Your task to perform on an android device: Go to privacy settings Image 0: 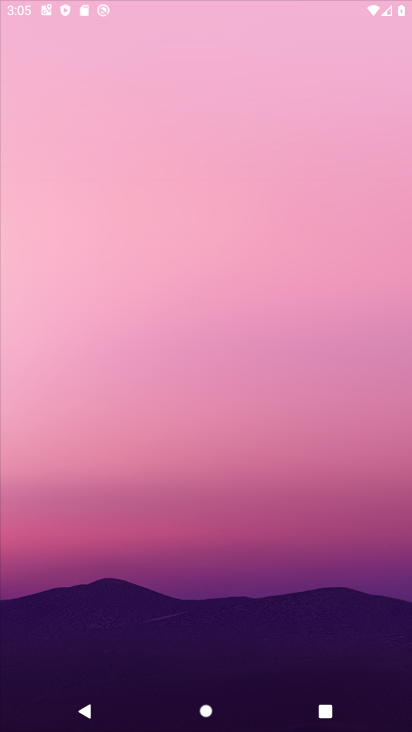
Step 0: press back button
Your task to perform on an android device: Go to privacy settings Image 1: 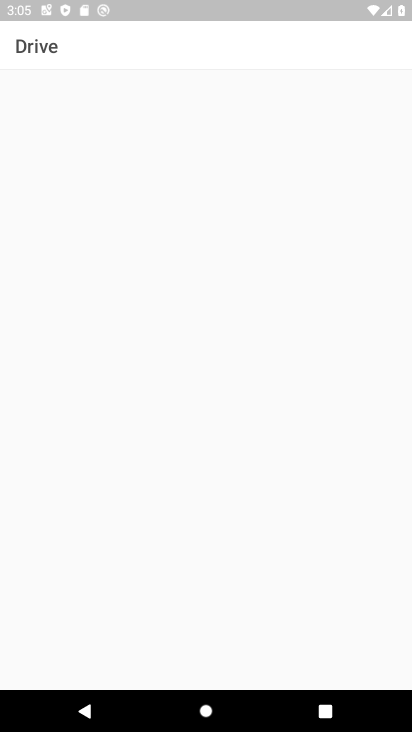
Step 1: press back button
Your task to perform on an android device: Go to privacy settings Image 2: 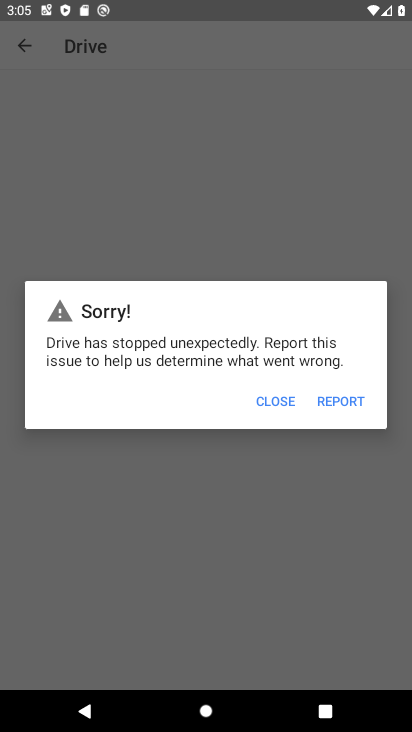
Step 2: press home button
Your task to perform on an android device: Go to privacy settings Image 3: 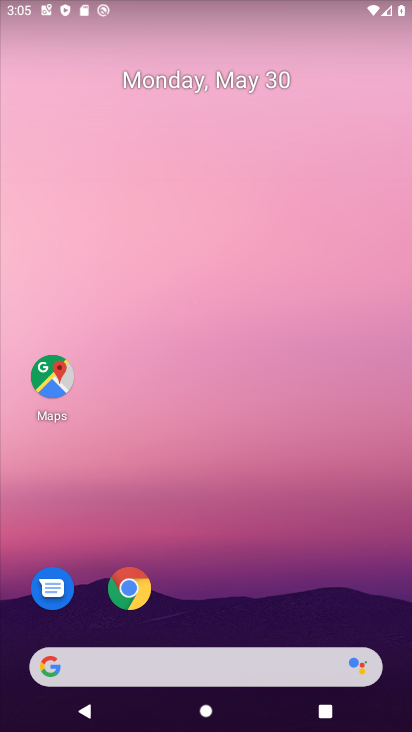
Step 3: drag from (238, 565) to (248, 35)
Your task to perform on an android device: Go to privacy settings Image 4: 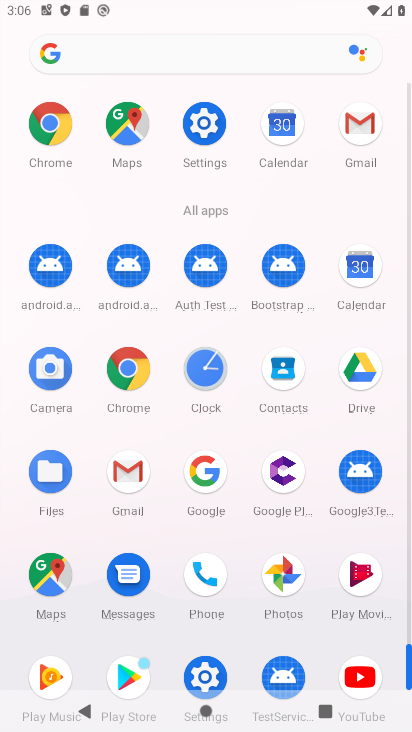
Step 4: drag from (11, 583) to (41, 230)
Your task to perform on an android device: Go to privacy settings Image 5: 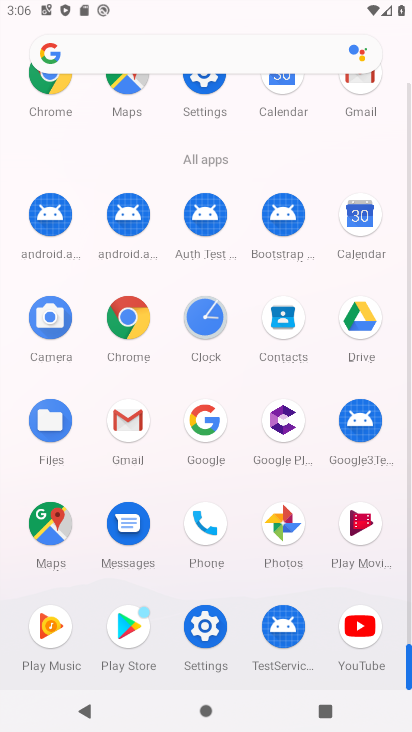
Step 5: click (206, 628)
Your task to perform on an android device: Go to privacy settings Image 6: 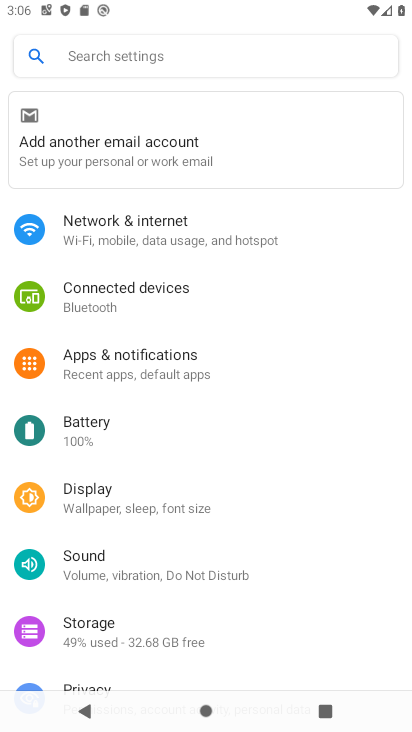
Step 6: press back button
Your task to perform on an android device: Go to privacy settings Image 7: 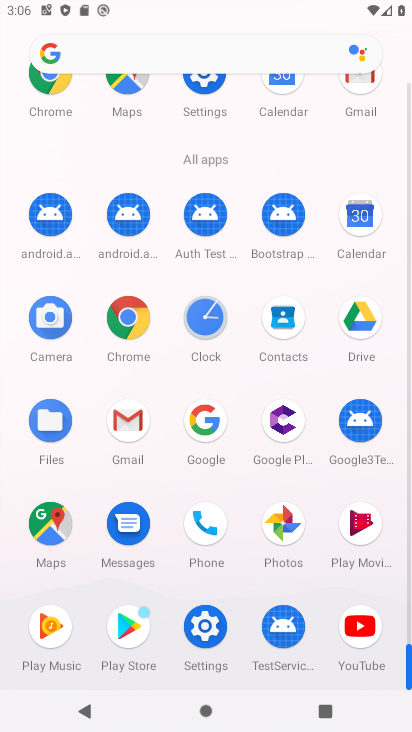
Step 7: click (127, 314)
Your task to perform on an android device: Go to privacy settings Image 8: 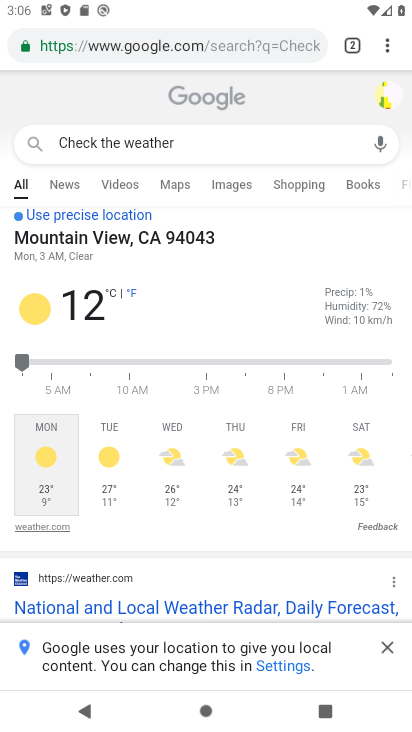
Step 8: drag from (384, 45) to (253, 502)
Your task to perform on an android device: Go to privacy settings Image 9: 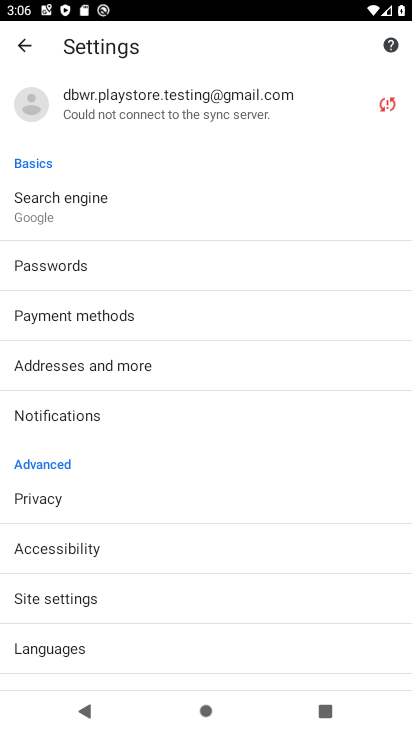
Step 9: click (64, 495)
Your task to perform on an android device: Go to privacy settings Image 10: 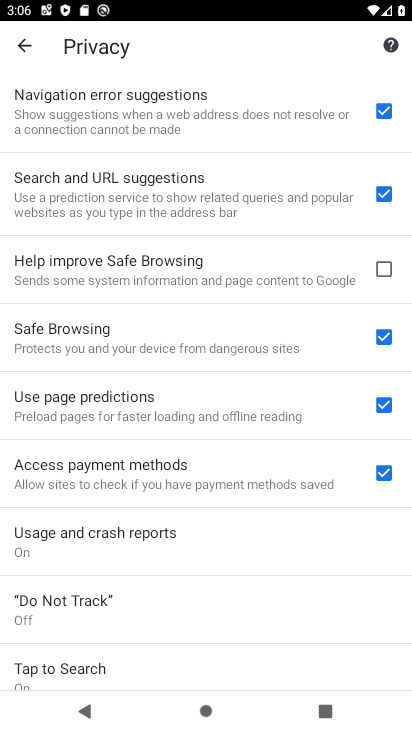
Step 10: task complete